Your task to perform on an android device: Open settings on Google Maps Image 0: 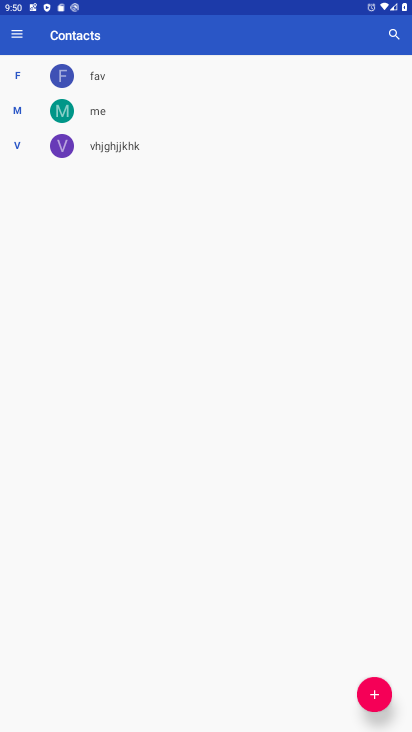
Step 0: press home button
Your task to perform on an android device: Open settings on Google Maps Image 1: 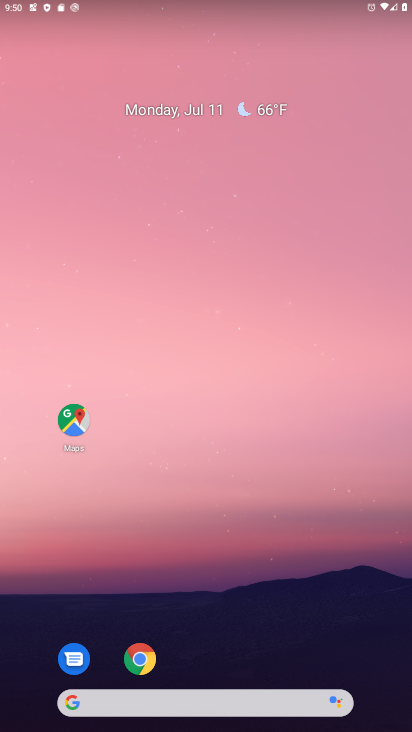
Step 1: drag from (352, 636) to (345, 187)
Your task to perform on an android device: Open settings on Google Maps Image 2: 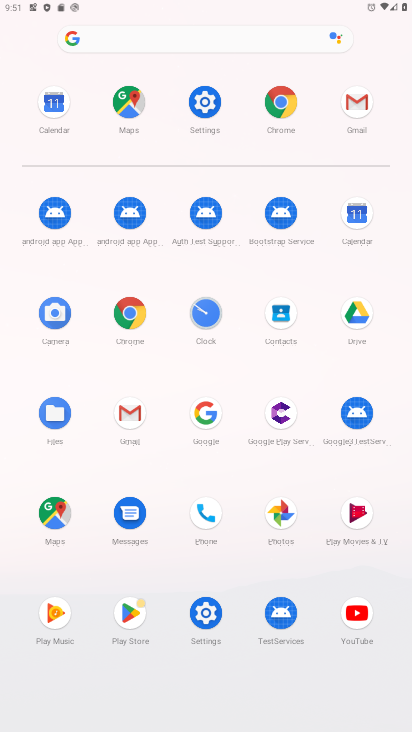
Step 2: click (57, 511)
Your task to perform on an android device: Open settings on Google Maps Image 3: 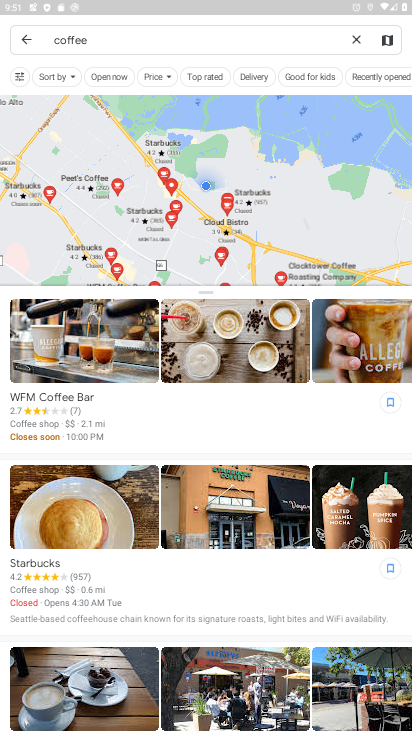
Step 3: press back button
Your task to perform on an android device: Open settings on Google Maps Image 4: 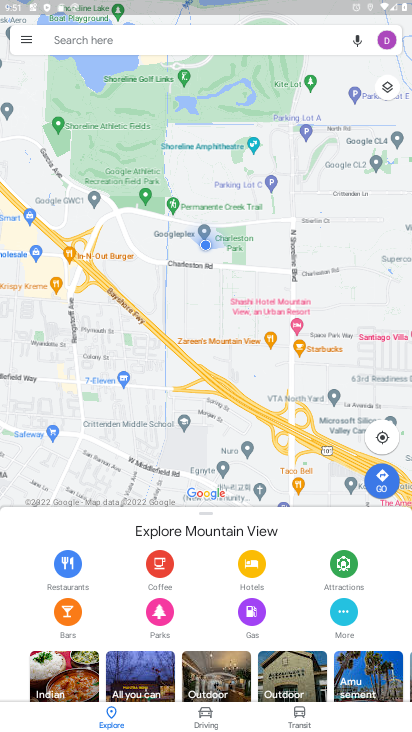
Step 4: click (27, 33)
Your task to perform on an android device: Open settings on Google Maps Image 5: 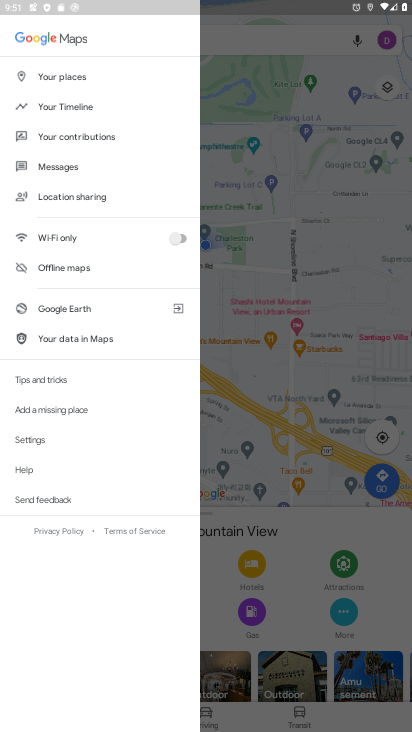
Step 5: click (53, 440)
Your task to perform on an android device: Open settings on Google Maps Image 6: 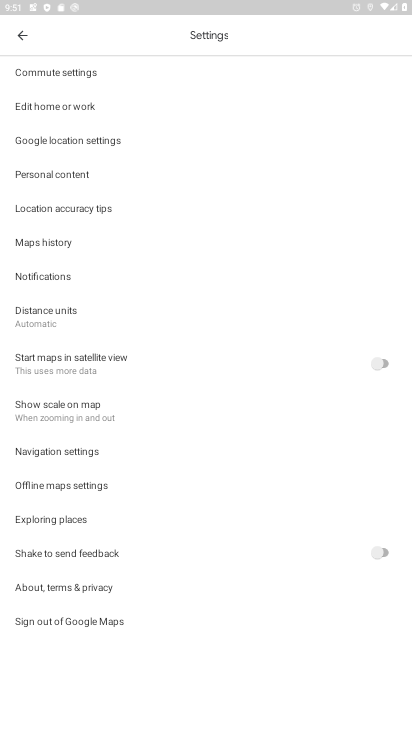
Step 6: task complete